Your task to perform on an android device: Open Wikipedia Image 0: 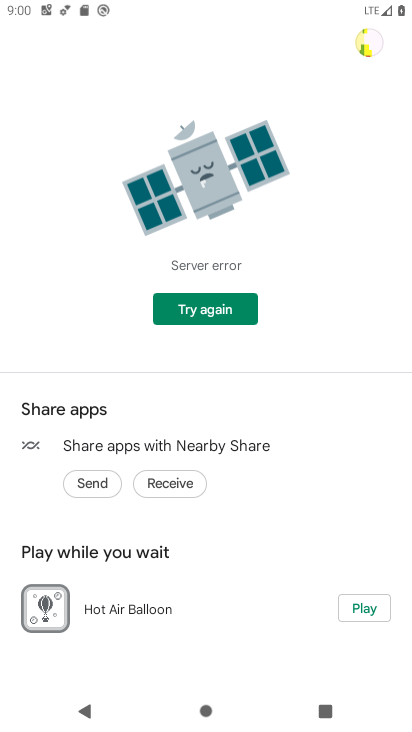
Step 0: press home button
Your task to perform on an android device: Open Wikipedia Image 1: 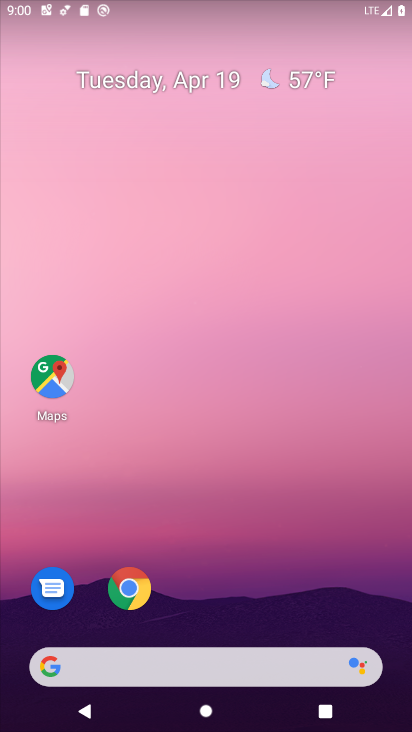
Step 1: drag from (246, 601) to (127, 62)
Your task to perform on an android device: Open Wikipedia Image 2: 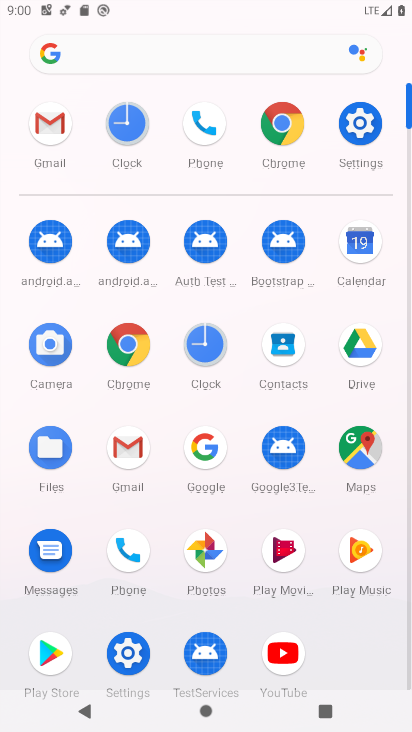
Step 2: click (280, 130)
Your task to perform on an android device: Open Wikipedia Image 3: 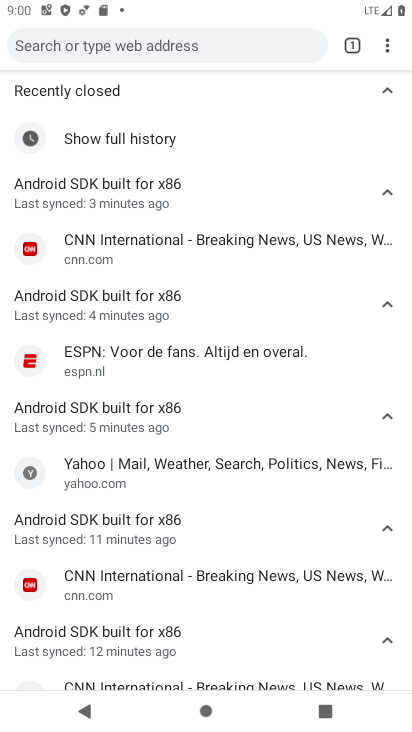
Step 3: click (156, 45)
Your task to perform on an android device: Open Wikipedia Image 4: 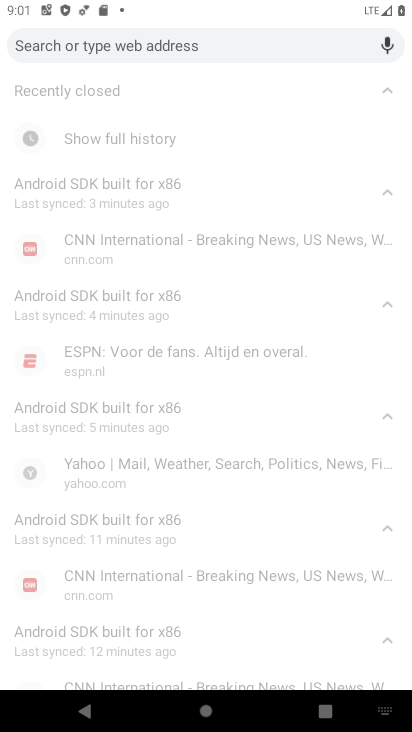
Step 4: type "wikipedia"
Your task to perform on an android device: Open Wikipedia Image 5: 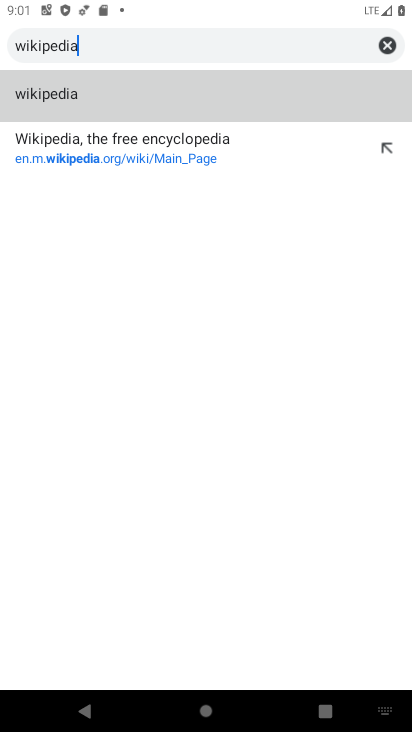
Step 5: click (30, 84)
Your task to perform on an android device: Open Wikipedia Image 6: 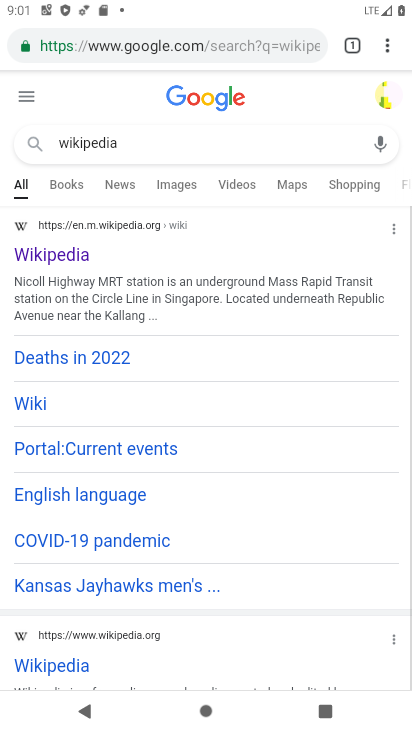
Step 6: click (63, 249)
Your task to perform on an android device: Open Wikipedia Image 7: 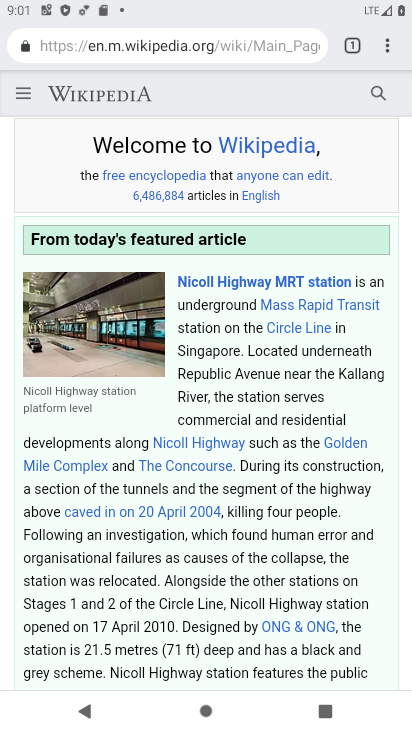
Step 7: task complete